Your task to perform on an android device: check out phone information Image 0: 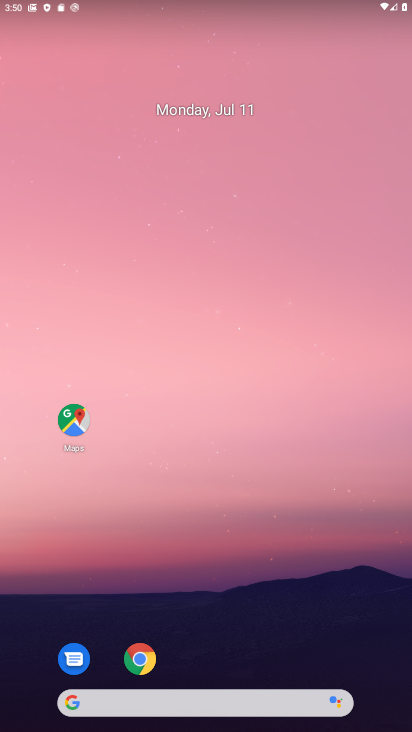
Step 0: click (151, 653)
Your task to perform on an android device: check out phone information Image 1: 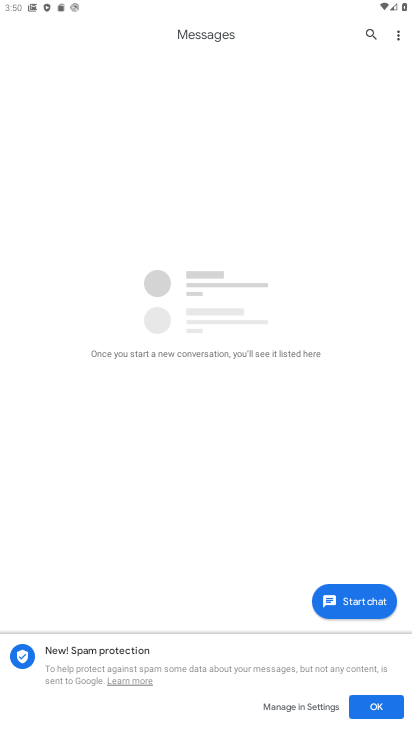
Step 1: drag from (247, 2) to (246, 579)
Your task to perform on an android device: check out phone information Image 2: 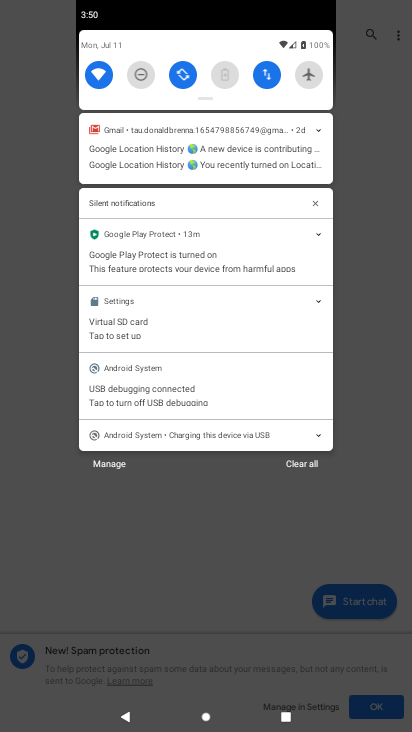
Step 2: drag from (214, 55) to (206, 575)
Your task to perform on an android device: check out phone information Image 3: 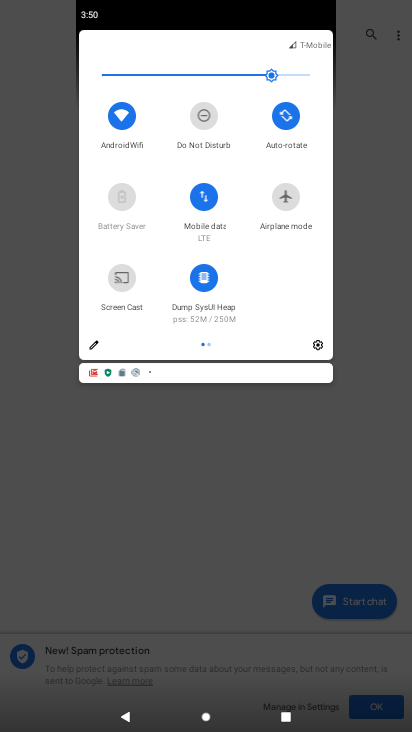
Step 3: click (322, 346)
Your task to perform on an android device: check out phone information Image 4: 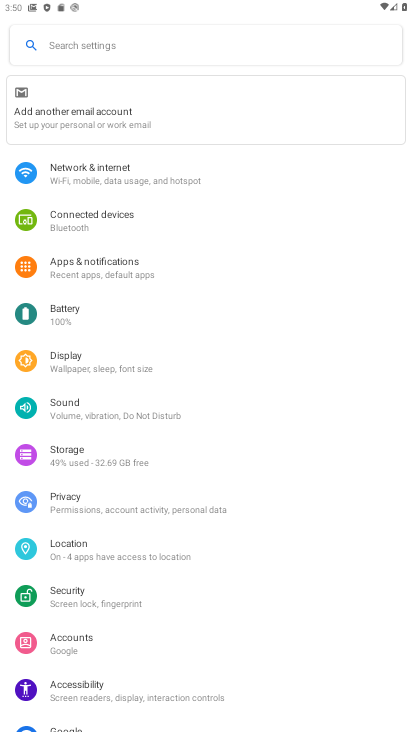
Step 4: drag from (56, 678) to (269, 118)
Your task to perform on an android device: check out phone information Image 5: 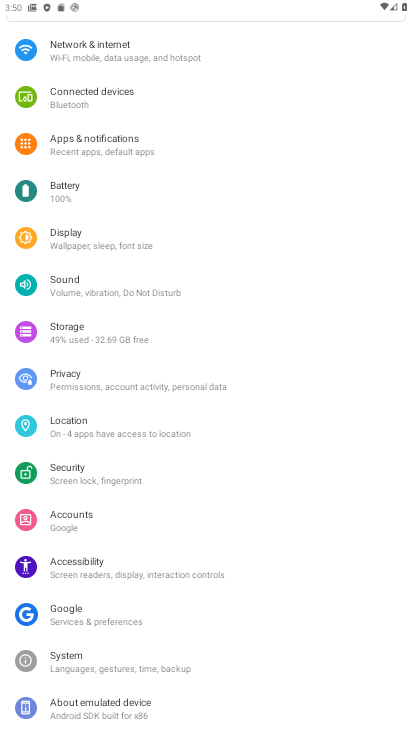
Step 5: click (98, 705)
Your task to perform on an android device: check out phone information Image 6: 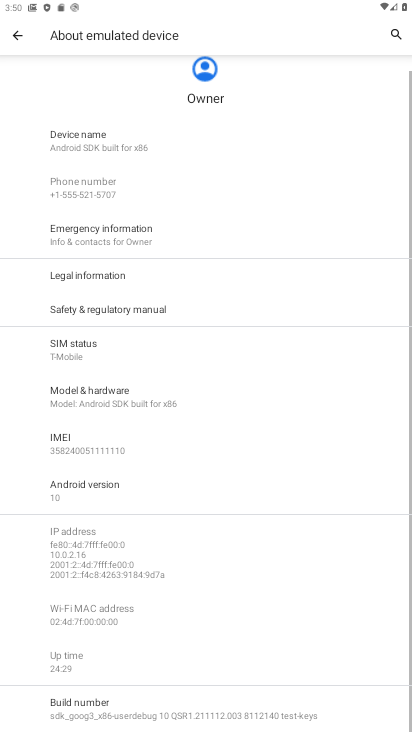
Step 6: task complete